Your task to perform on an android device: open device folders in google photos Image 0: 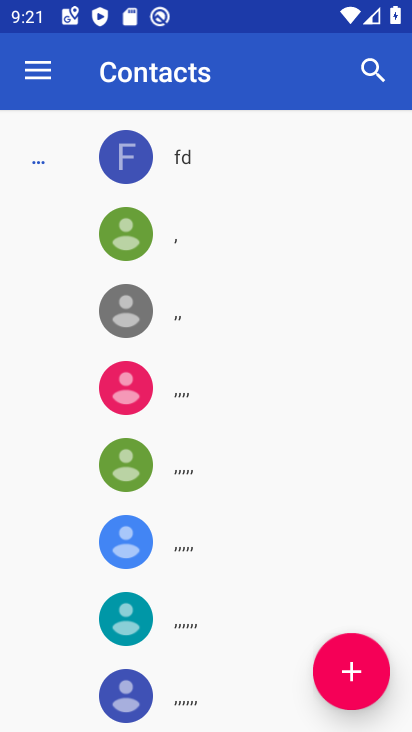
Step 0: press home button
Your task to perform on an android device: open device folders in google photos Image 1: 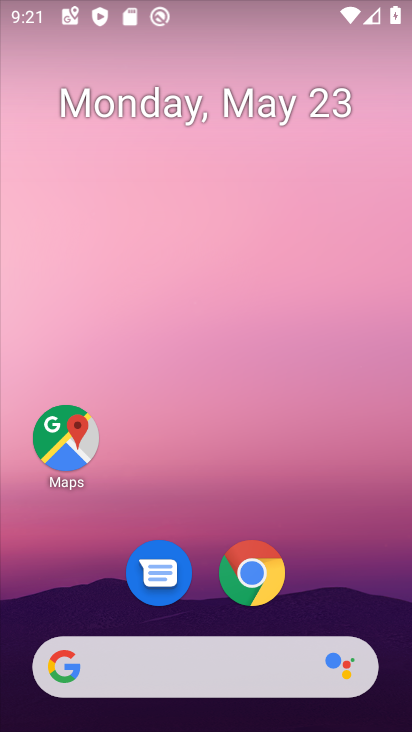
Step 1: drag from (367, 607) to (369, 217)
Your task to perform on an android device: open device folders in google photos Image 2: 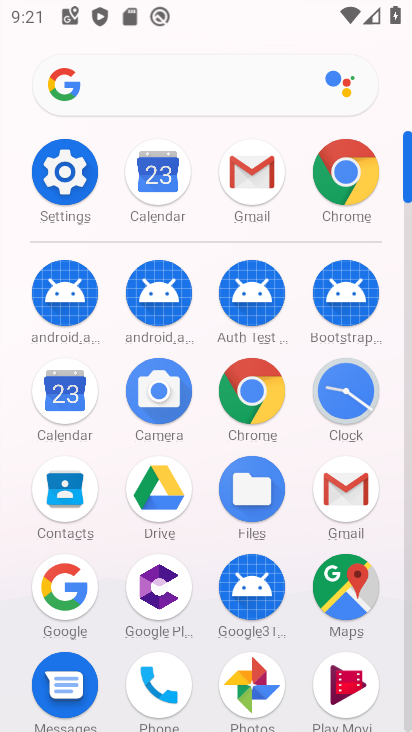
Step 2: drag from (394, 618) to (391, 502)
Your task to perform on an android device: open device folders in google photos Image 3: 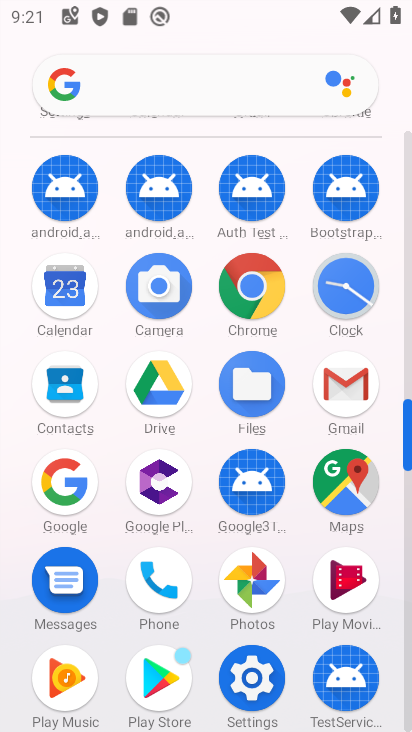
Step 3: drag from (387, 612) to (390, 423)
Your task to perform on an android device: open device folders in google photos Image 4: 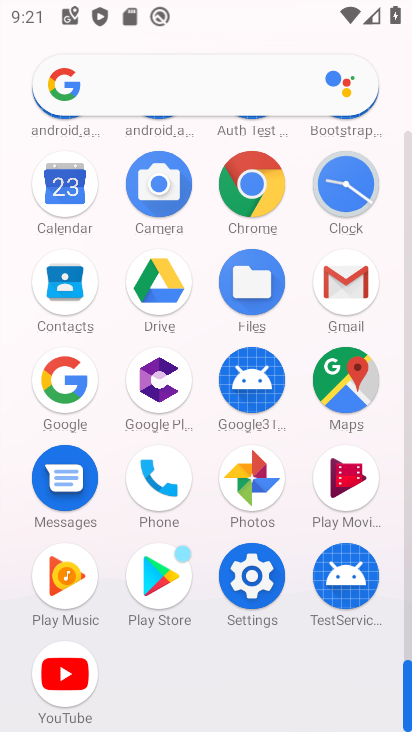
Step 4: click (262, 480)
Your task to perform on an android device: open device folders in google photos Image 5: 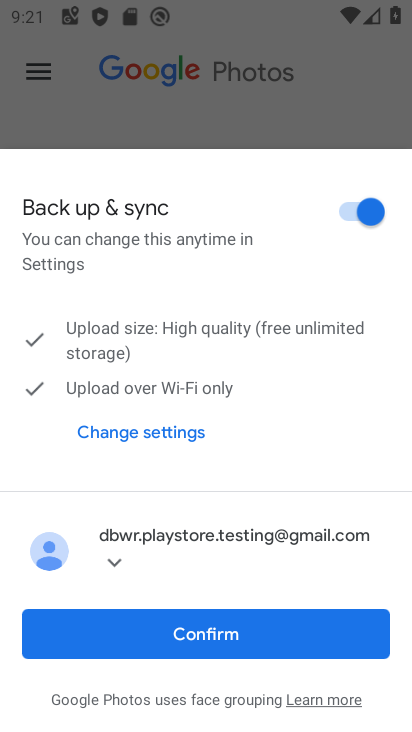
Step 5: click (264, 640)
Your task to perform on an android device: open device folders in google photos Image 6: 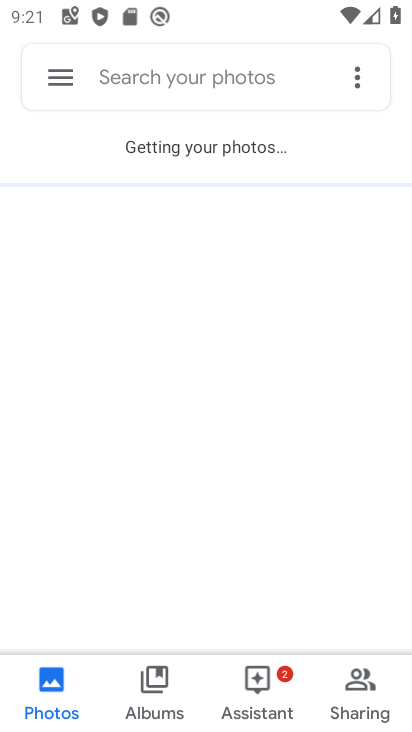
Step 6: click (67, 77)
Your task to perform on an android device: open device folders in google photos Image 7: 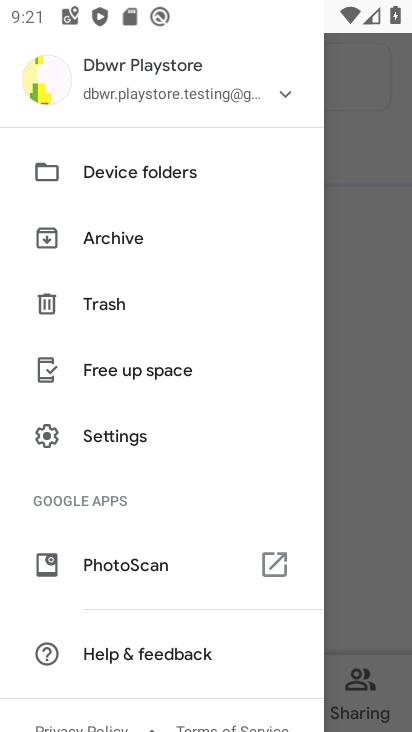
Step 7: click (177, 183)
Your task to perform on an android device: open device folders in google photos Image 8: 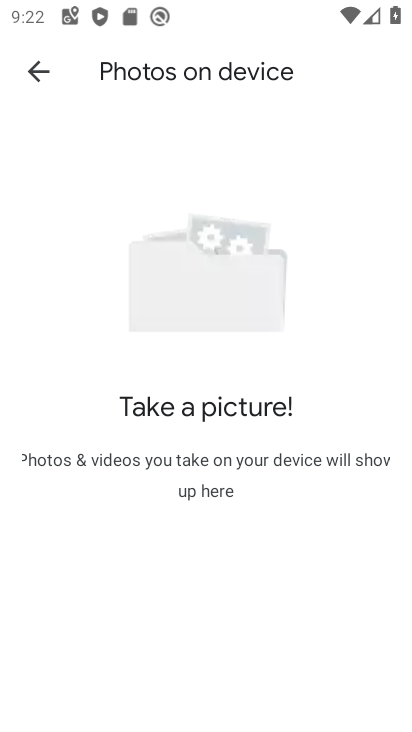
Step 8: task complete